Your task to perform on an android device: Open settings on Google Maps Image 0: 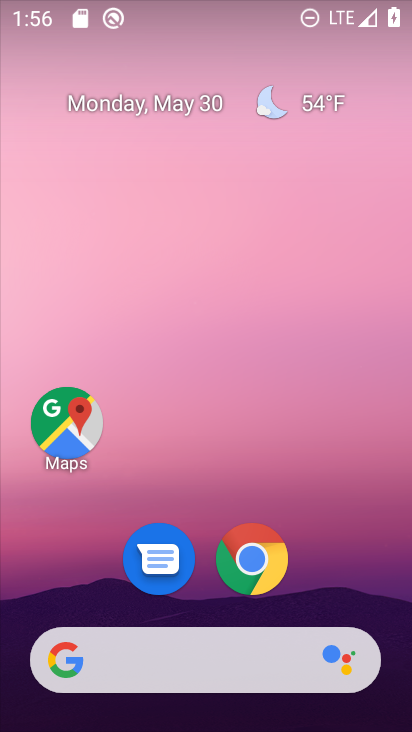
Step 0: drag from (361, 555) to (354, 23)
Your task to perform on an android device: Open settings on Google Maps Image 1: 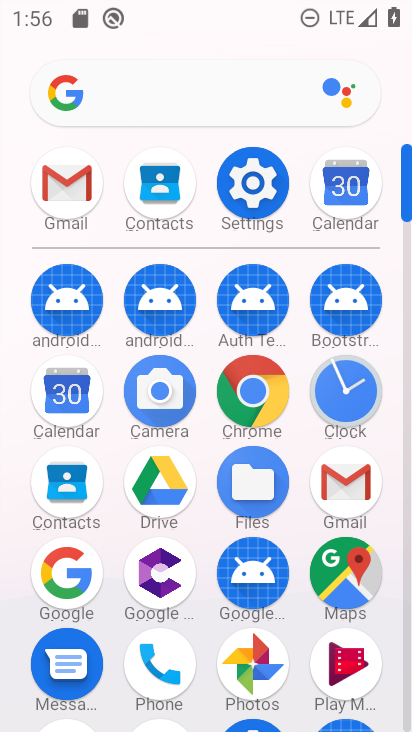
Step 1: click (325, 563)
Your task to perform on an android device: Open settings on Google Maps Image 2: 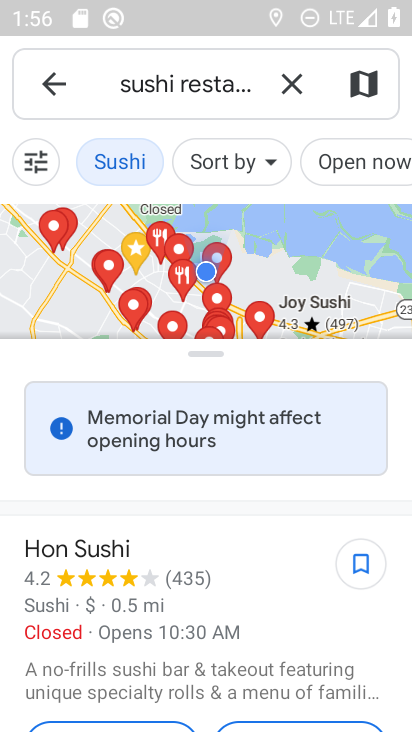
Step 2: click (49, 84)
Your task to perform on an android device: Open settings on Google Maps Image 3: 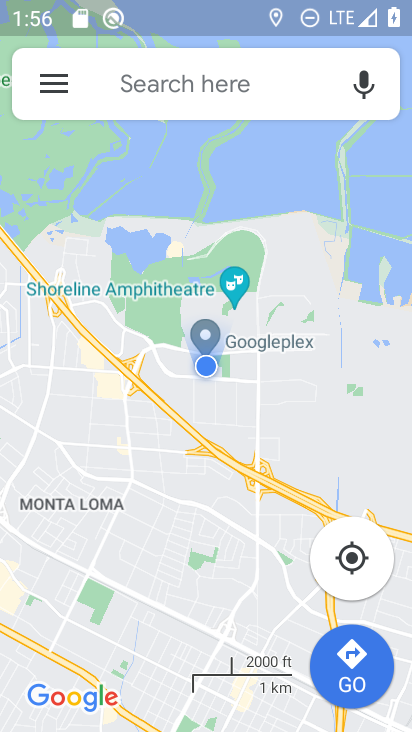
Step 3: click (49, 84)
Your task to perform on an android device: Open settings on Google Maps Image 4: 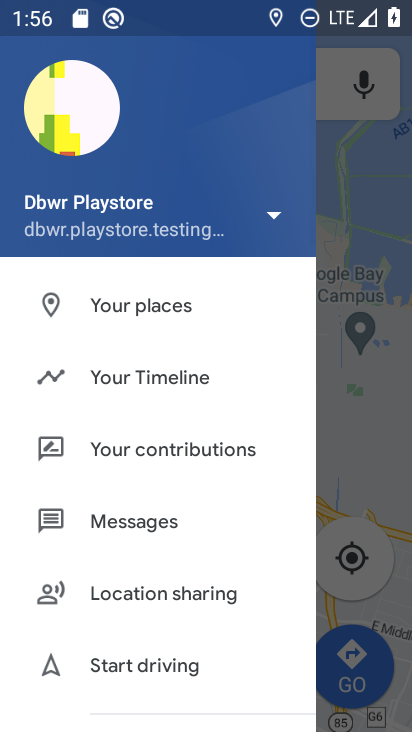
Step 4: drag from (69, 564) to (72, 0)
Your task to perform on an android device: Open settings on Google Maps Image 5: 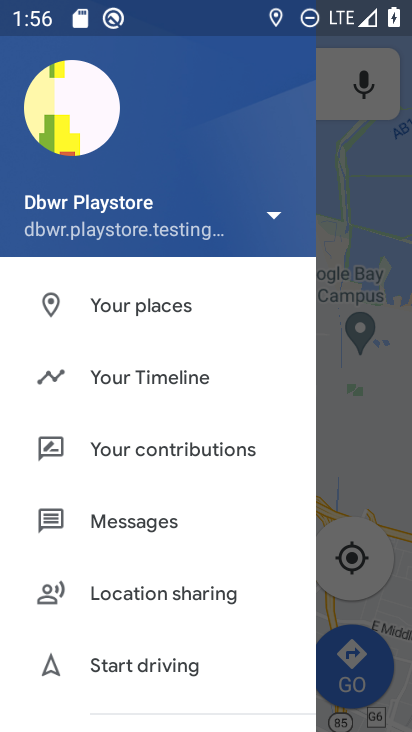
Step 5: drag from (105, 598) to (150, 213)
Your task to perform on an android device: Open settings on Google Maps Image 6: 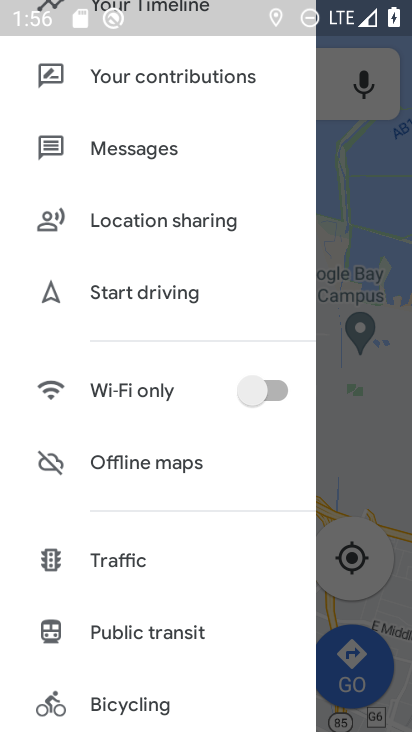
Step 6: drag from (142, 644) to (248, 174)
Your task to perform on an android device: Open settings on Google Maps Image 7: 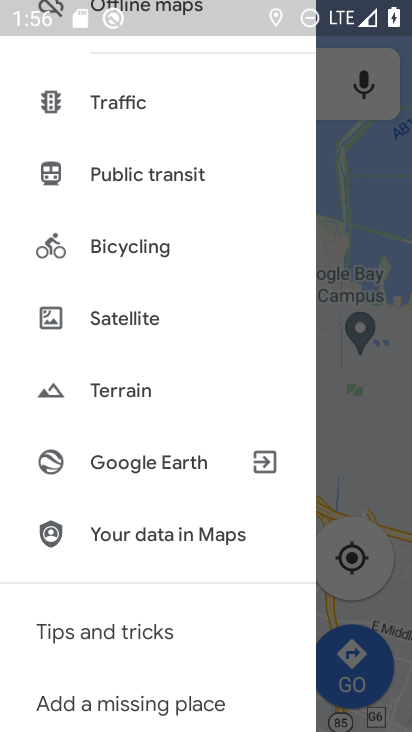
Step 7: drag from (135, 673) to (152, 211)
Your task to perform on an android device: Open settings on Google Maps Image 8: 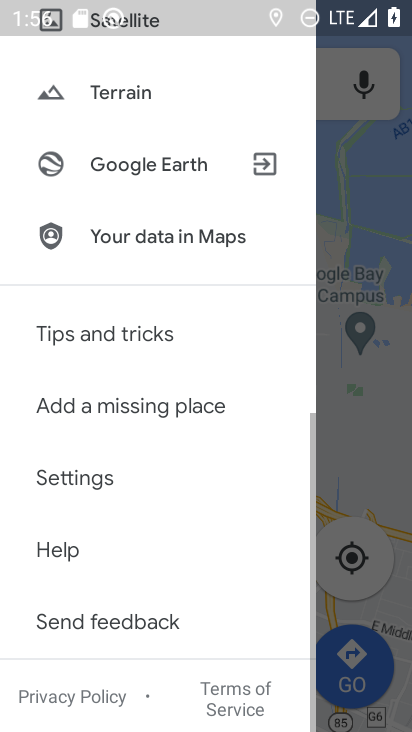
Step 8: drag from (136, 652) to (186, 331)
Your task to perform on an android device: Open settings on Google Maps Image 9: 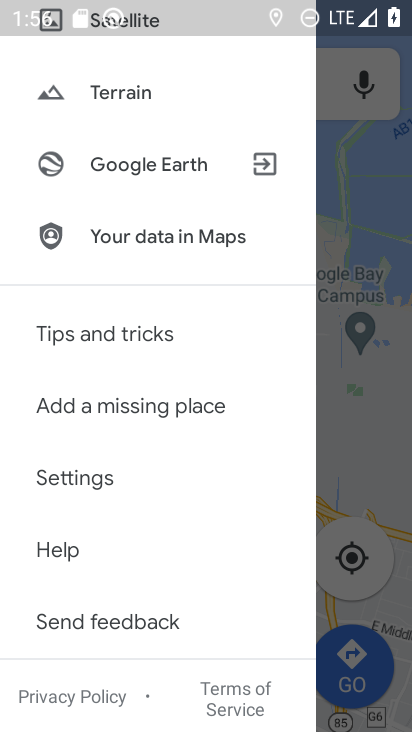
Step 9: click (99, 471)
Your task to perform on an android device: Open settings on Google Maps Image 10: 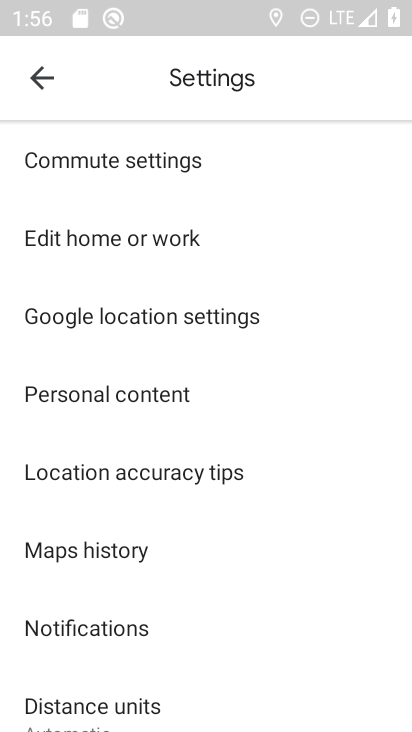
Step 10: task complete